Your task to perform on an android device: turn on airplane mode Image 0: 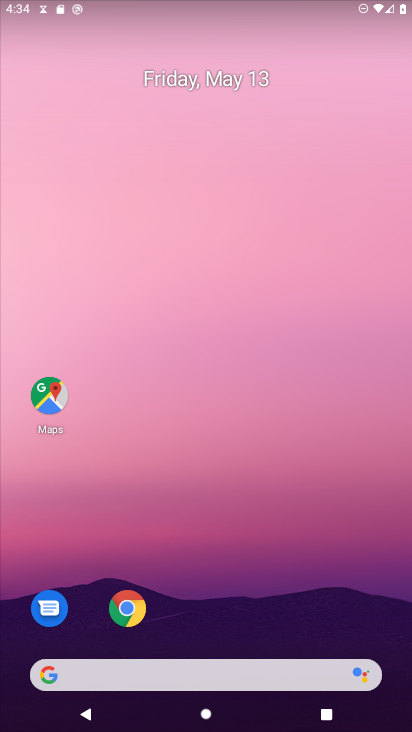
Step 0: drag from (262, 526) to (277, 0)
Your task to perform on an android device: turn on airplane mode Image 1: 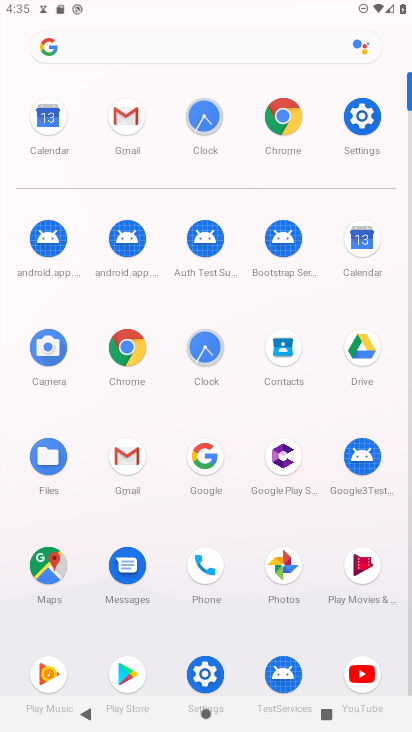
Step 1: click (376, 115)
Your task to perform on an android device: turn on airplane mode Image 2: 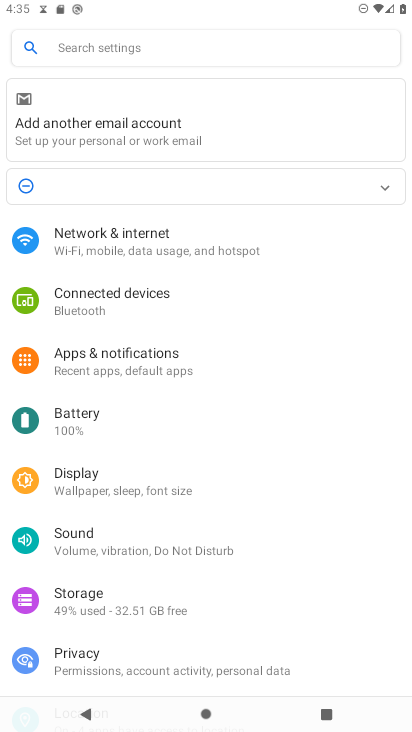
Step 2: click (140, 248)
Your task to perform on an android device: turn on airplane mode Image 3: 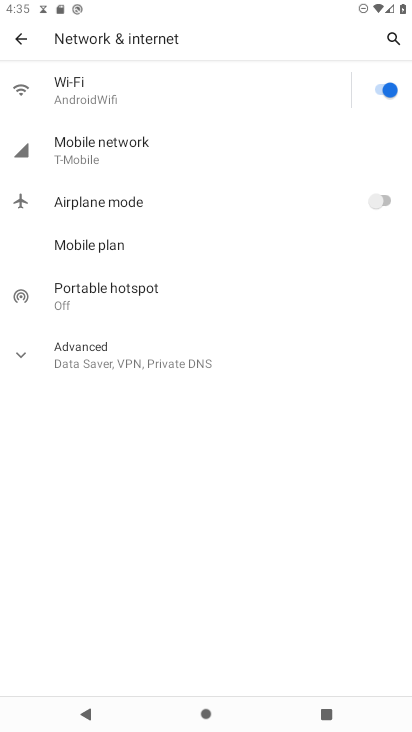
Step 3: click (382, 199)
Your task to perform on an android device: turn on airplane mode Image 4: 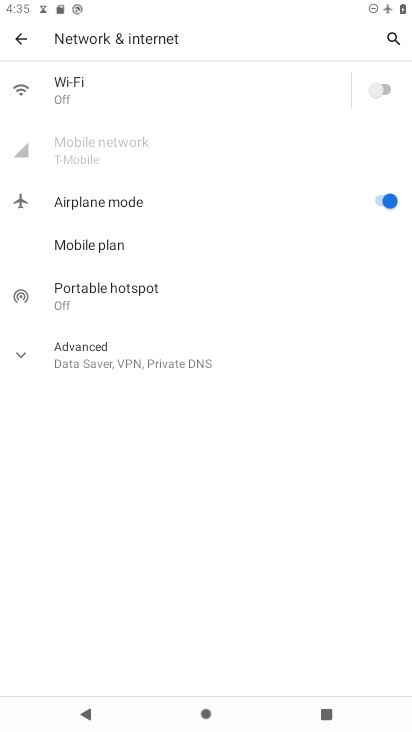
Step 4: task complete